Your task to perform on an android device: Open the phone app and click the voicemail tab. Image 0: 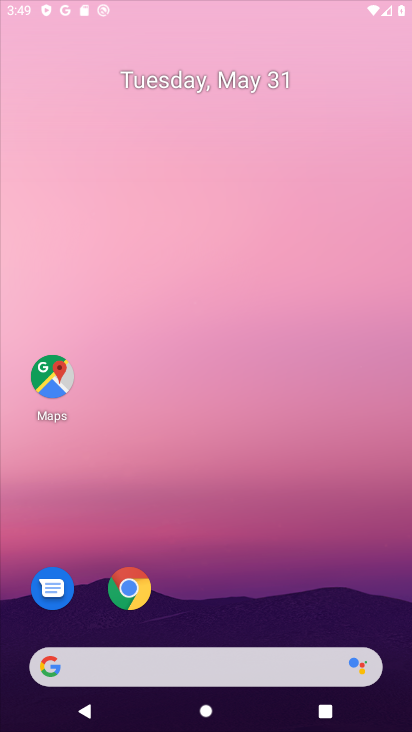
Step 0: click (170, 674)
Your task to perform on an android device: Open the phone app and click the voicemail tab. Image 1: 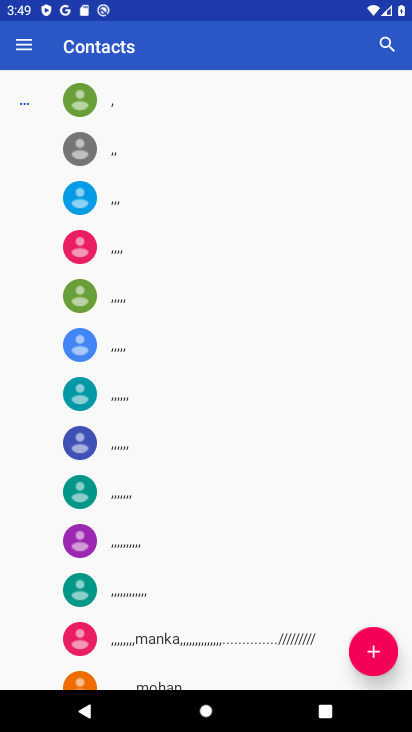
Step 1: press home button
Your task to perform on an android device: Open the phone app and click the voicemail tab. Image 2: 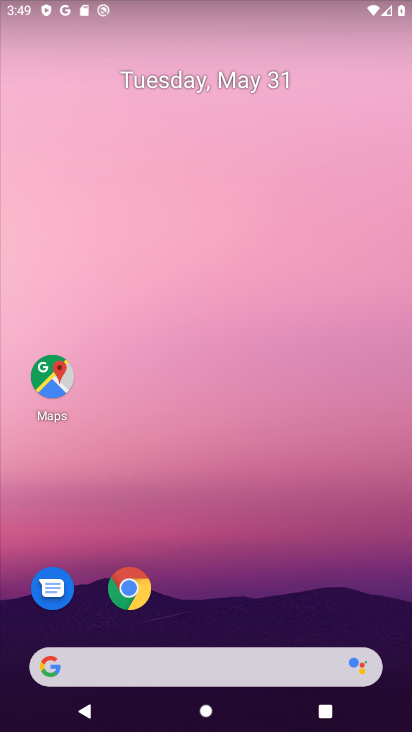
Step 2: drag from (246, 609) to (238, 161)
Your task to perform on an android device: Open the phone app and click the voicemail tab. Image 3: 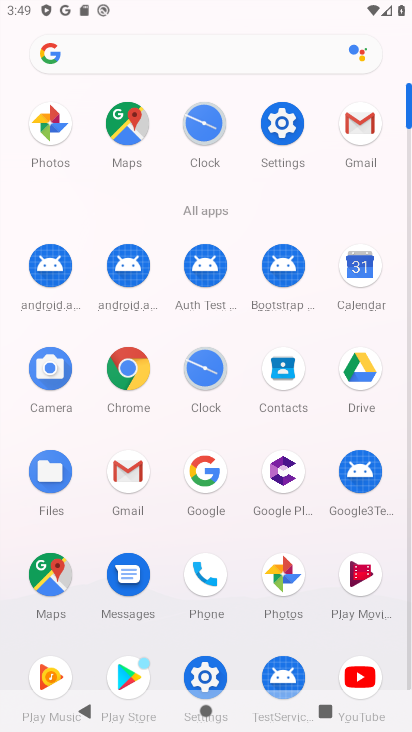
Step 3: click (201, 584)
Your task to perform on an android device: Open the phone app and click the voicemail tab. Image 4: 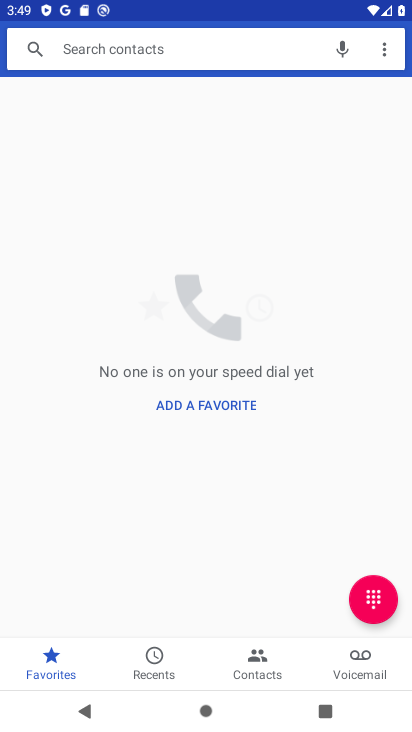
Step 4: click (381, 664)
Your task to perform on an android device: Open the phone app and click the voicemail tab. Image 5: 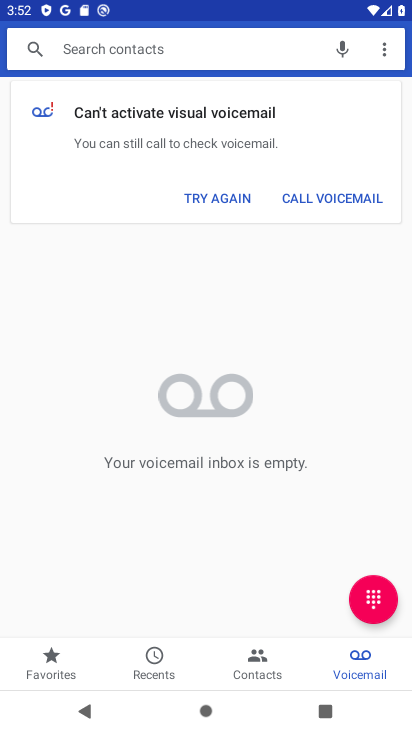
Step 5: task complete